Your task to perform on an android device: turn on notifications settings in the gmail app Image 0: 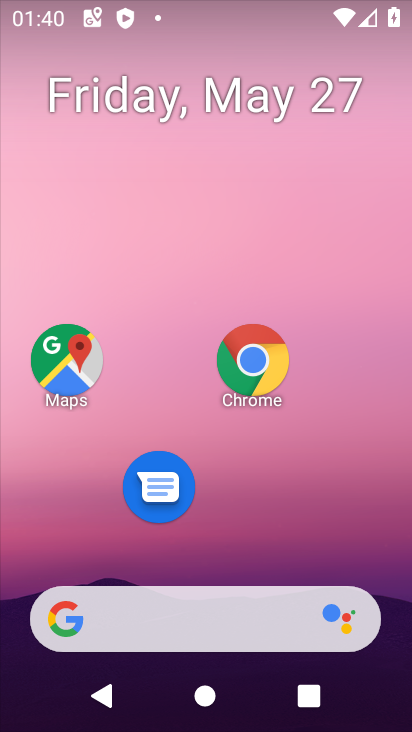
Step 0: drag from (247, 531) to (259, 66)
Your task to perform on an android device: turn on notifications settings in the gmail app Image 1: 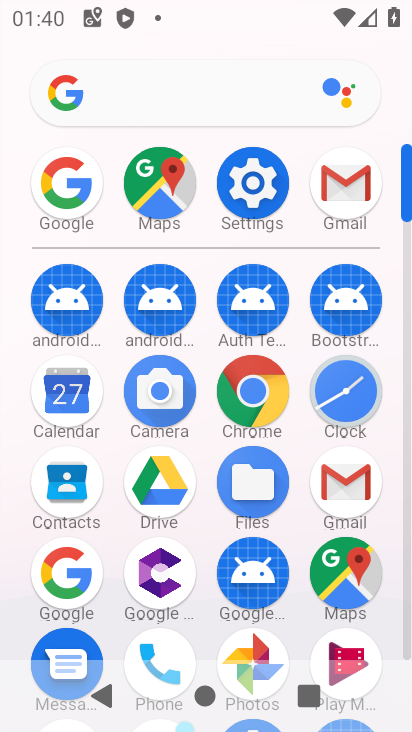
Step 1: click (347, 189)
Your task to perform on an android device: turn on notifications settings in the gmail app Image 2: 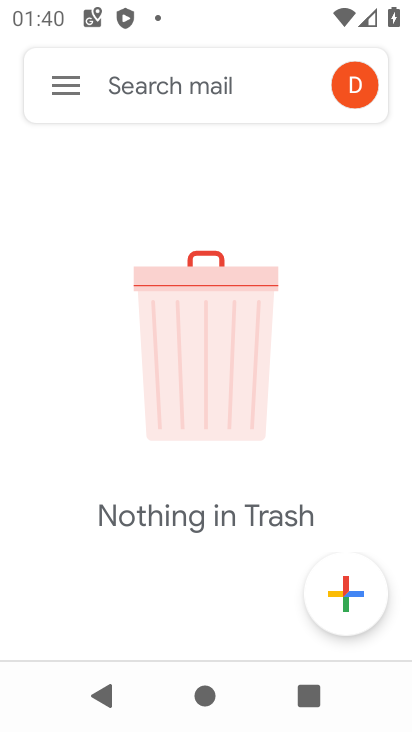
Step 2: click (57, 91)
Your task to perform on an android device: turn on notifications settings in the gmail app Image 3: 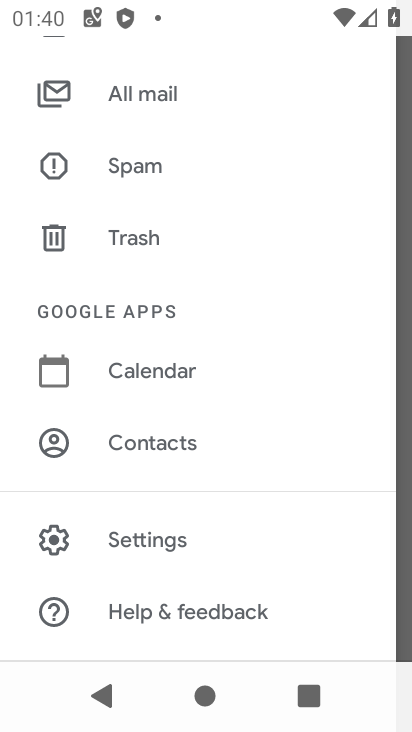
Step 3: click (176, 535)
Your task to perform on an android device: turn on notifications settings in the gmail app Image 4: 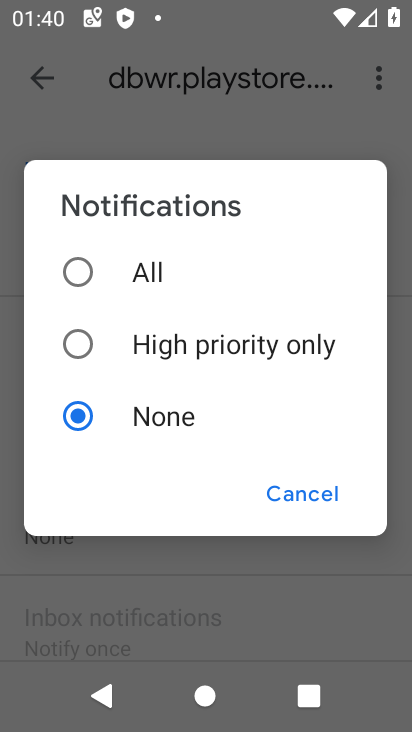
Step 4: click (83, 280)
Your task to perform on an android device: turn on notifications settings in the gmail app Image 5: 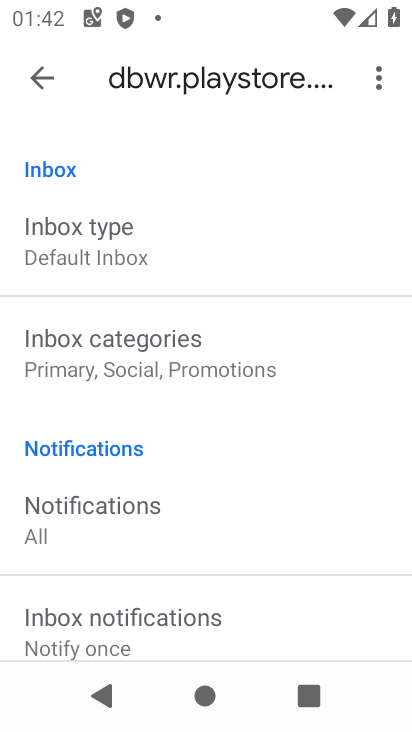
Step 5: task complete